Your task to perform on an android device: turn on javascript in the chrome app Image 0: 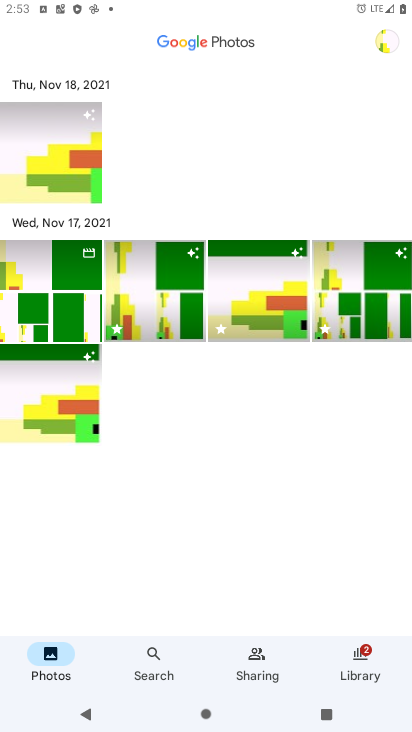
Step 0: press home button
Your task to perform on an android device: turn on javascript in the chrome app Image 1: 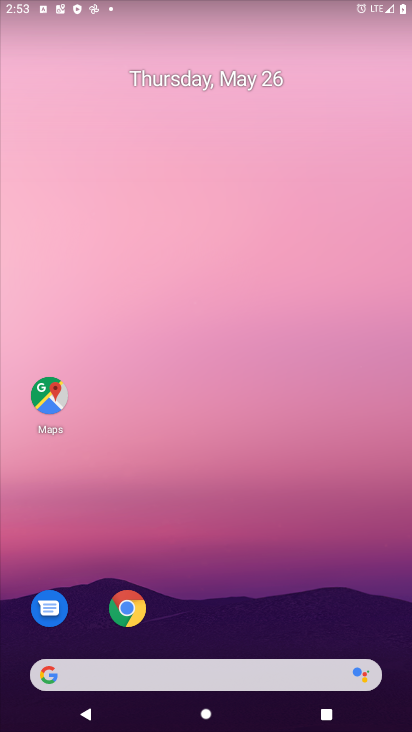
Step 1: click (129, 606)
Your task to perform on an android device: turn on javascript in the chrome app Image 2: 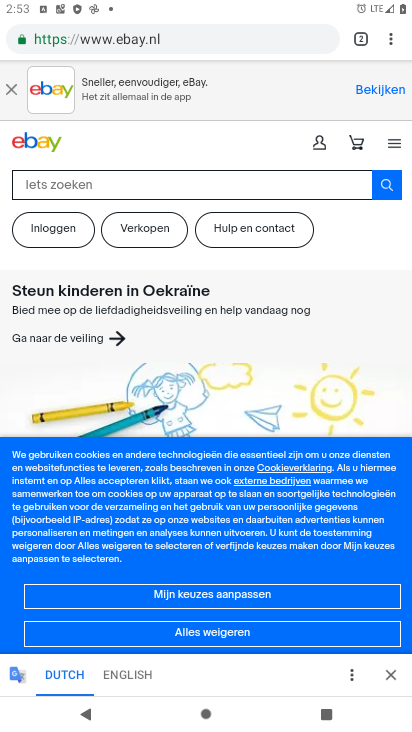
Step 2: click (393, 47)
Your task to perform on an android device: turn on javascript in the chrome app Image 3: 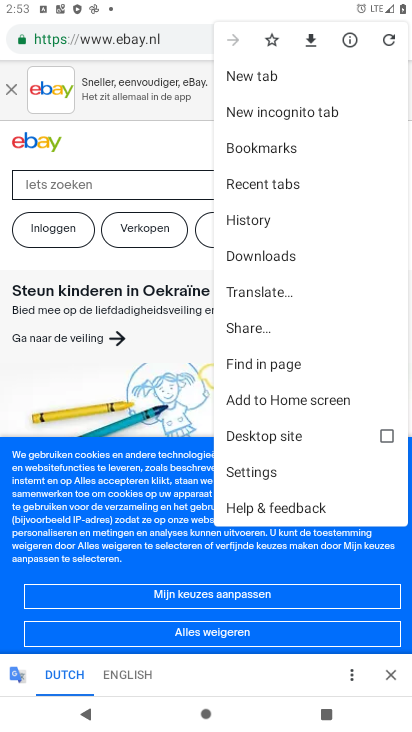
Step 3: click (260, 467)
Your task to perform on an android device: turn on javascript in the chrome app Image 4: 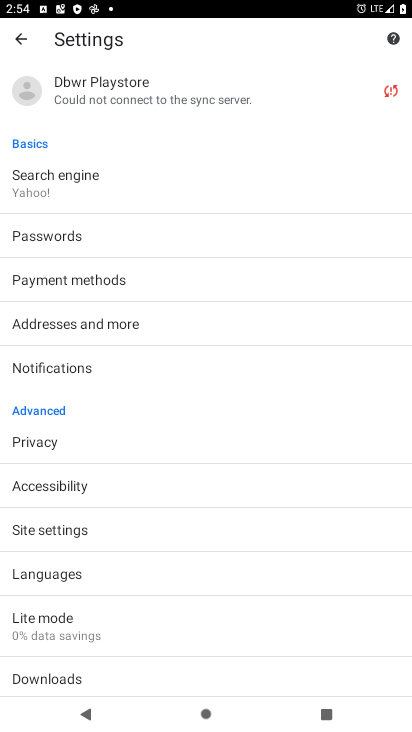
Step 4: click (44, 536)
Your task to perform on an android device: turn on javascript in the chrome app Image 5: 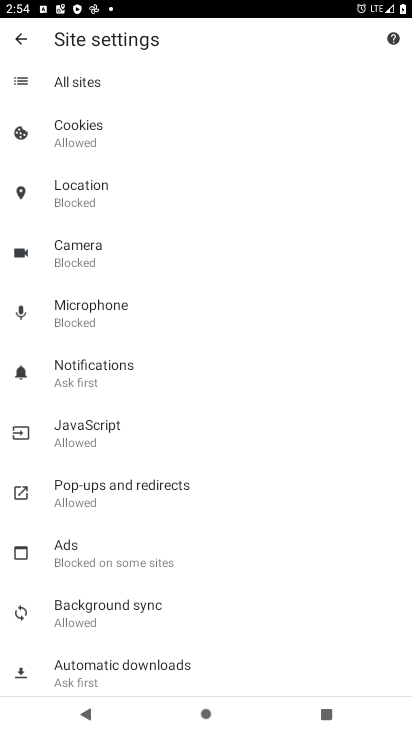
Step 5: click (69, 440)
Your task to perform on an android device: turn on javascript in the chrome app Image 6: 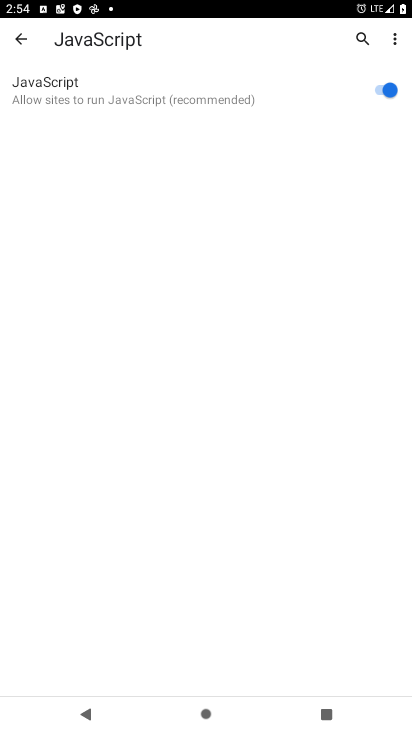
Step 6: task complete